Your task to perform on an android device: Show me popular games on the Play Store Image 0: 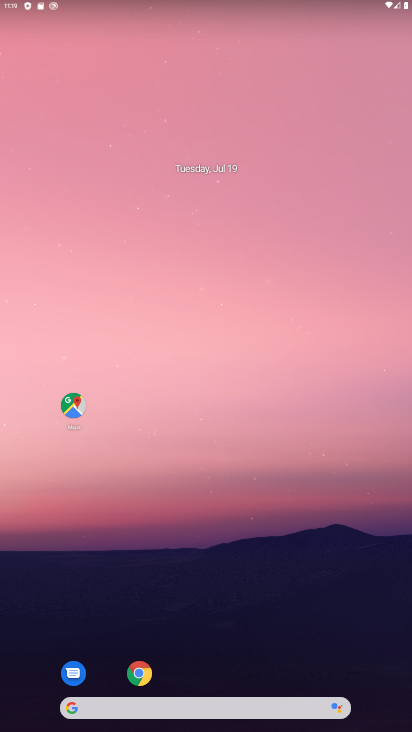
Step 0: drag from (153, 680) to (188, 184)
Your task to perform on an android device: Show me popular games on the Play Store Image 1: 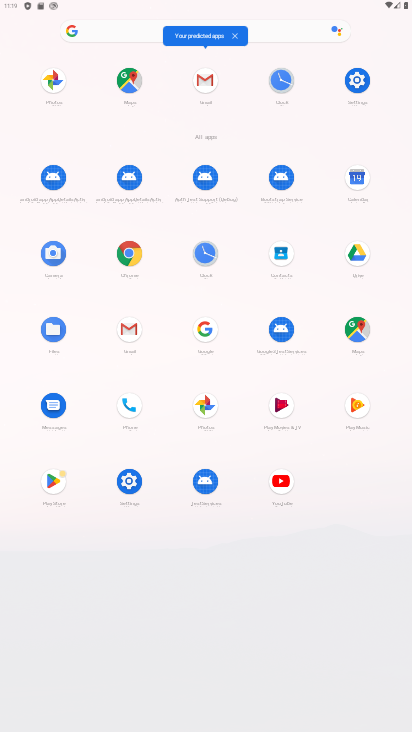
Step 1: click (54, 485)
Your task to perform on an android device: Show me popular games on the Play Store Image 2: 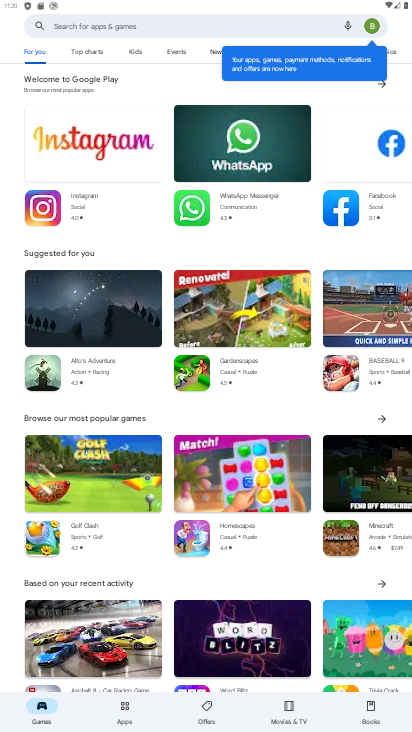
Step 2: click (383, 414)
Your task to perform on an android device: Show me popular games on the Play Store Image 3: 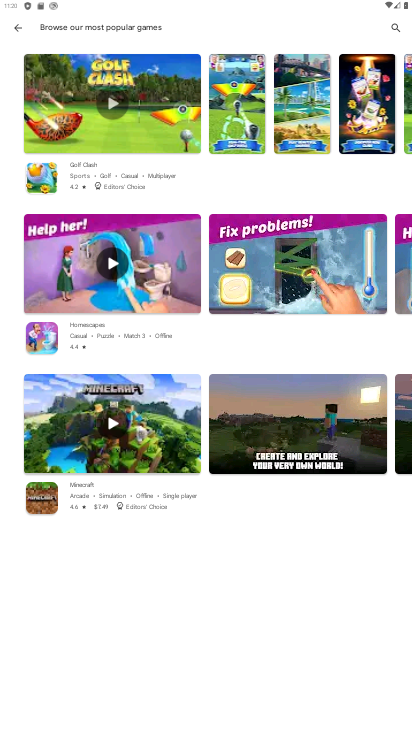
Step 3: task complete